Your task to perform on an android device: Go to Amazon Image 0: 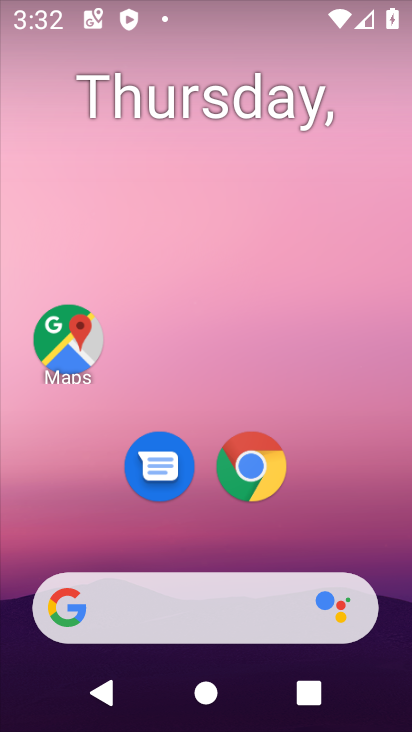
Step 0: drag from (95, 539) to (252, 3)
Your task to perform on an android device: Go to Amazon Image 1: 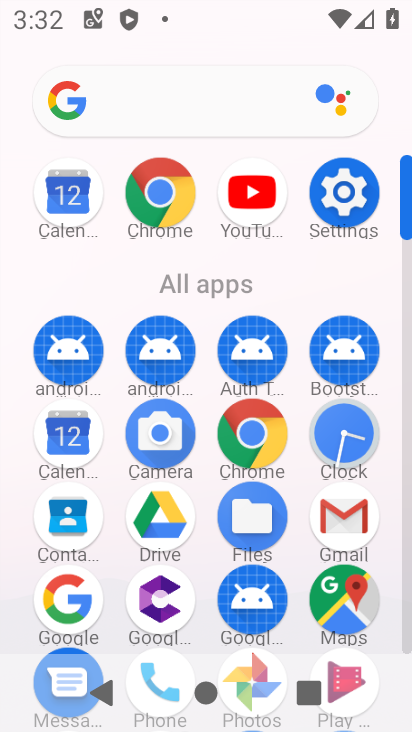
Step 1: drag from (326, 484) to (335, 168)
Your task to perform on an android device: Go to Amazon Image 2: 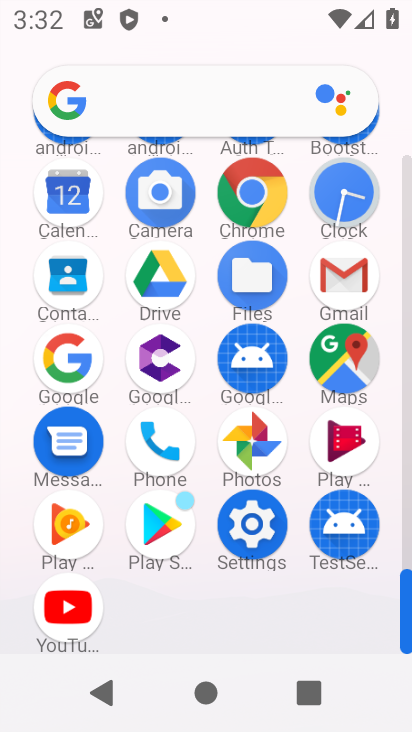
Step 2: click (267, 202)
Your task to perform on an android device: Go to Amazon Image 3: 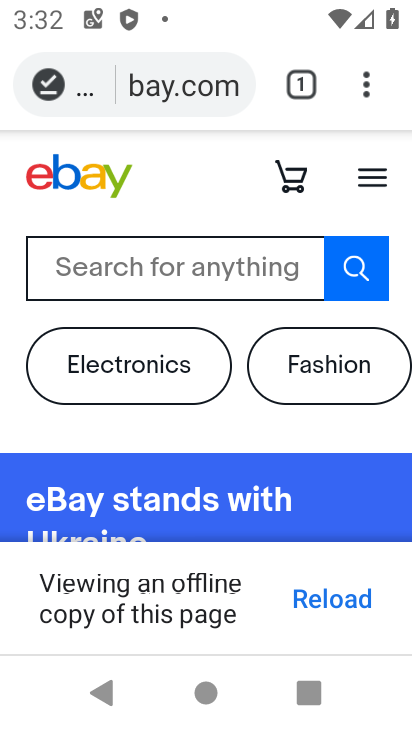
Step 3: drag from (372, 74) to (181, 153)
Your task to perform on an android device: Go to Amazon Image 4: 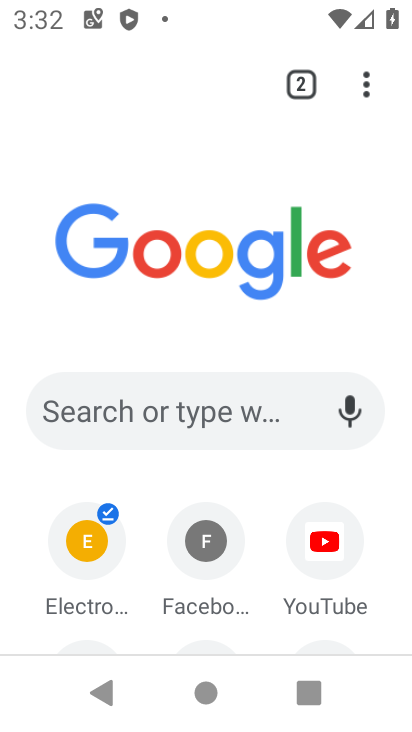
Step 4: drag from (262, 567) to (285, 119)
Your task to perform on an android device: Go to Amazon Image 5: 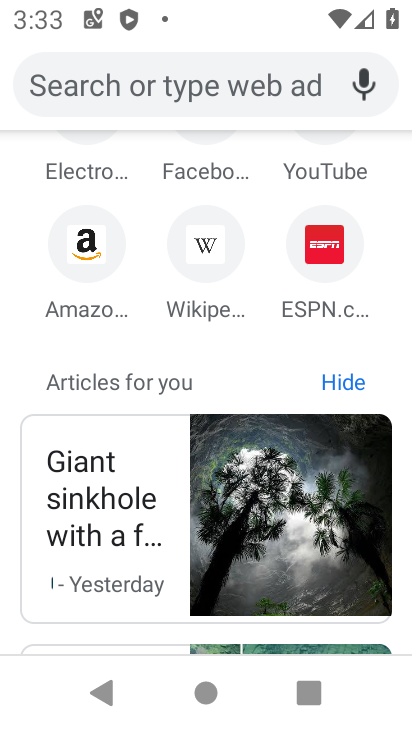
Step 5: click (102, 247)
Your task to perform on an android device: Go to Amazon Image 6: 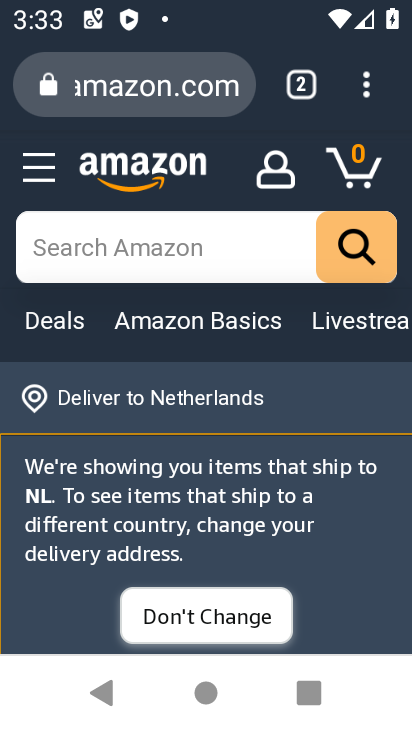
Step 6: task complete